Your task to perform on an android device: set the stopwatch Image 0: 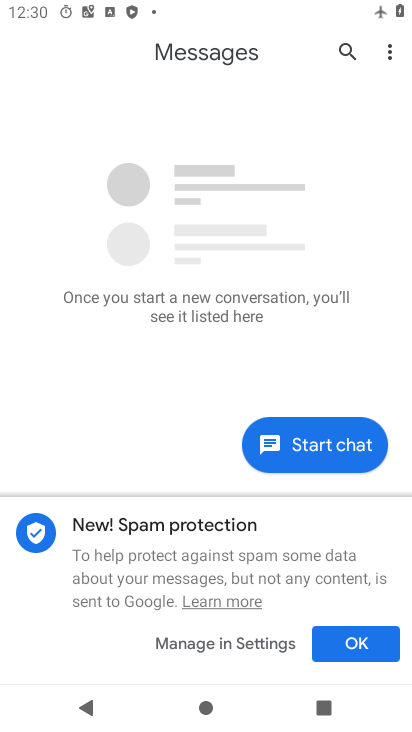
Step 0: press home button
Your task to perform on an android device: set the stopwatch Image 1: 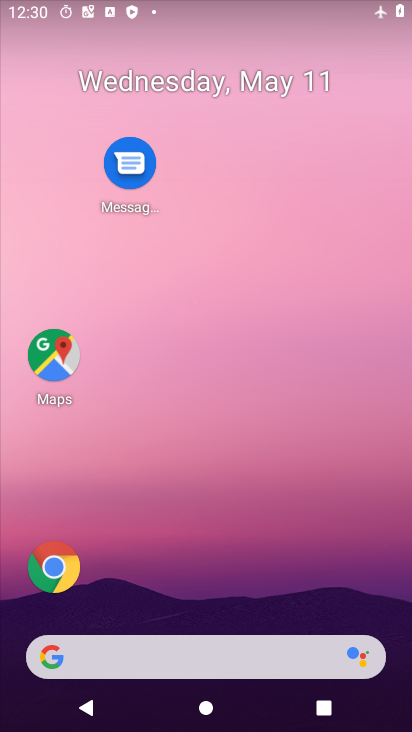
Step 1: drag from (322, 537) to (290, 298)
Your task to perform on an android device: set the stopwatch Image 2: 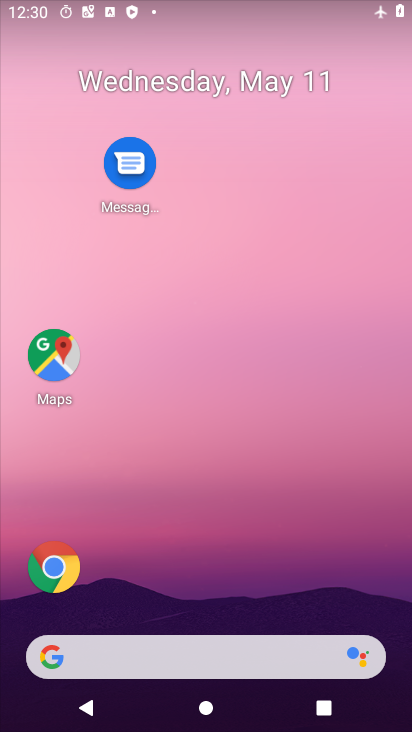
Step 2: drag from (256, 539) to (271, 388)
Your task to perform on an android device: set the stopwatch Image 3: 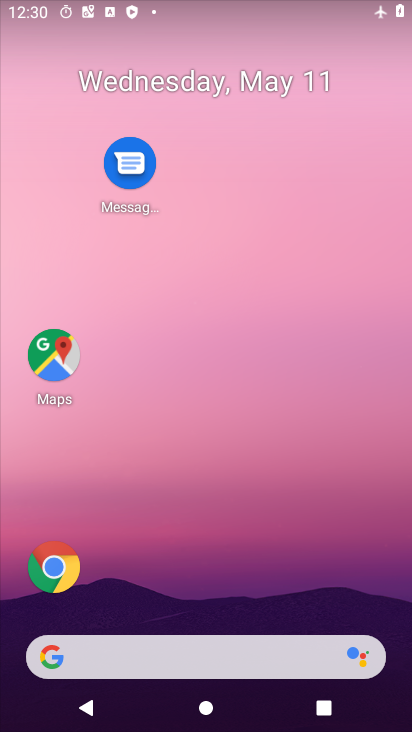
Step 3: drag from (256, 606) to (309, 165)
Your task to perform on an android device: set the stopwatch Image 4: 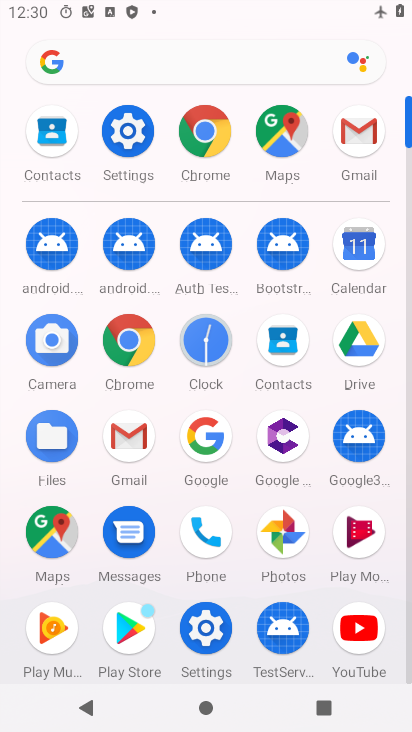
Step 4: click (202, 346)
Your task to perform on an android device: set the stopwatch Image 5: 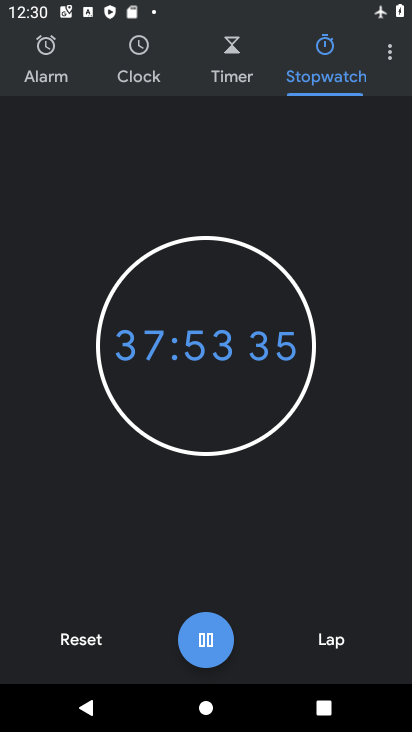
Step 5: click (216, 649)
Your task to perform on an android device: set the stopwatch Image 6: 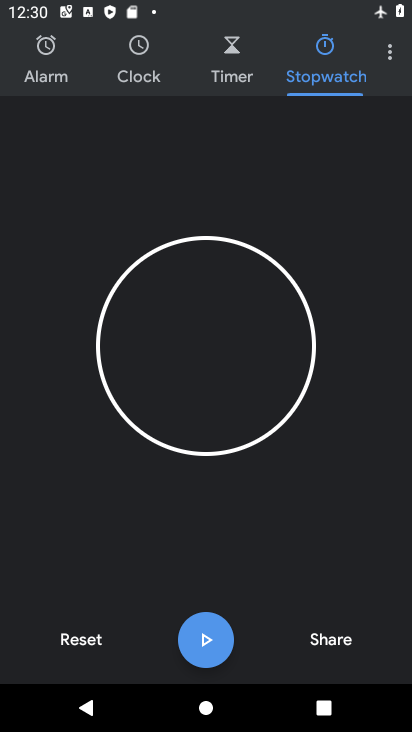
Step 6: click (99, 642)
Your task to perform on an android device: set the stopwatch Image 7: 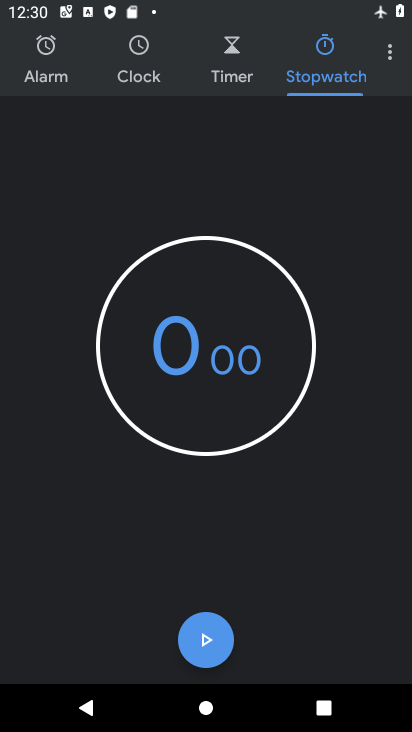
Step 7: click (219, 645)
Your task to perform on an android device: set the stopwatch Image 8: 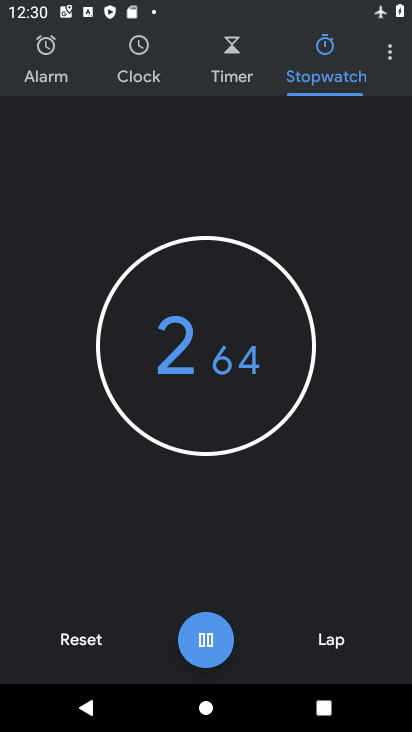
Step 8: task complete